Your task to perform on an android device: Open the Play Movies app and select the watchlist tab. Image 0: 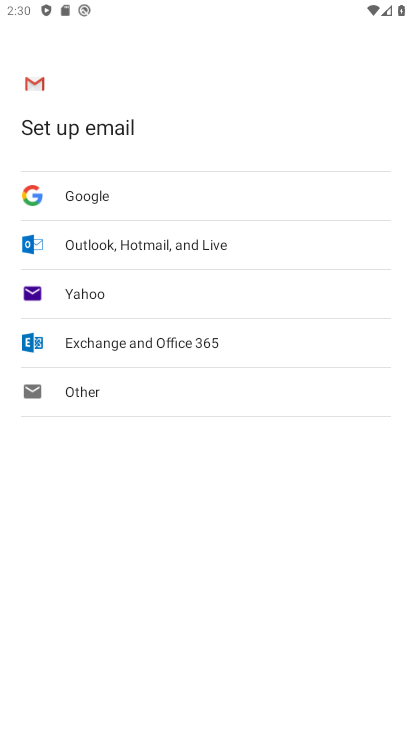
Step 0: press home button
Your task to perform on an android device: Open the Play Movies app and select the watchlist tab. Image 1: 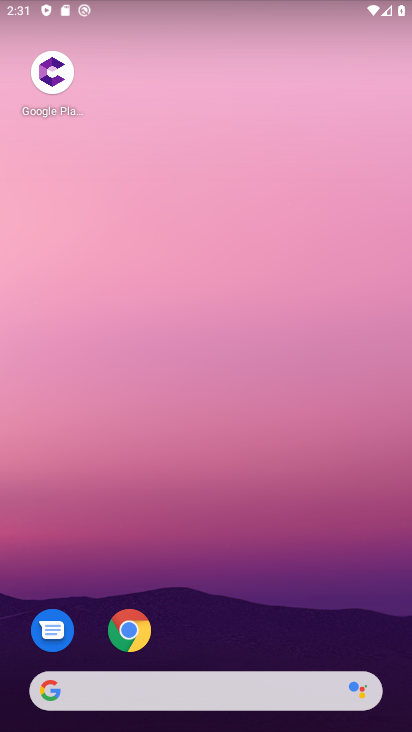
Step 1: drag from (274, 718) to (240, 330)
Your task to perform on an android device: Open the Play Movies app and select the watchlist tab. Image 2: 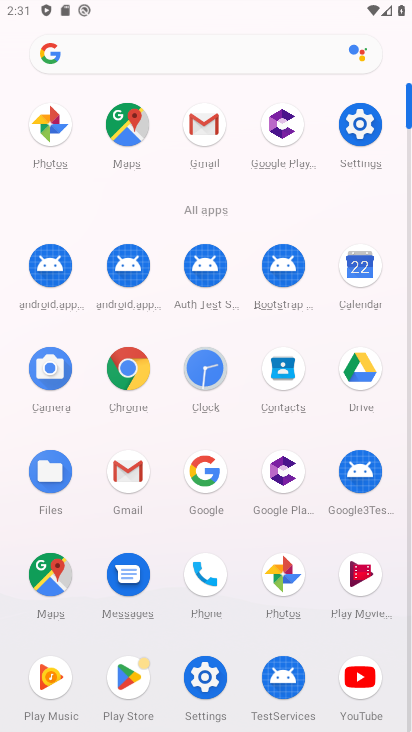
Step 2: click (357, 573)
Your task to perform on an android device: Open the Play Movies app and select the watchlist tab. Image 3: 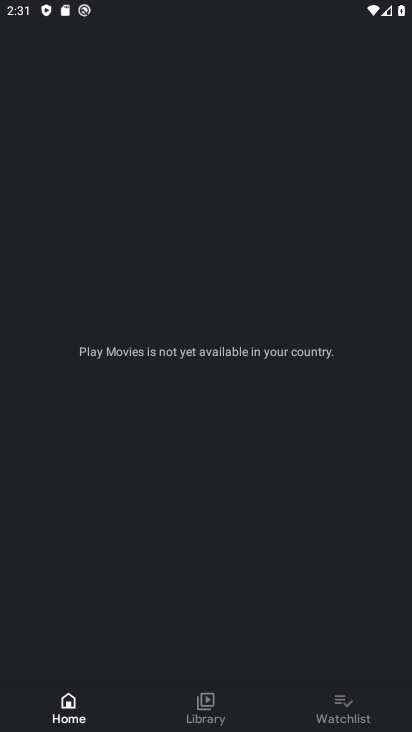
Step 3: click (342, 709)
Your task to perform on an android device: Open the Play Movies app and select the watchlist tab. Image 4: 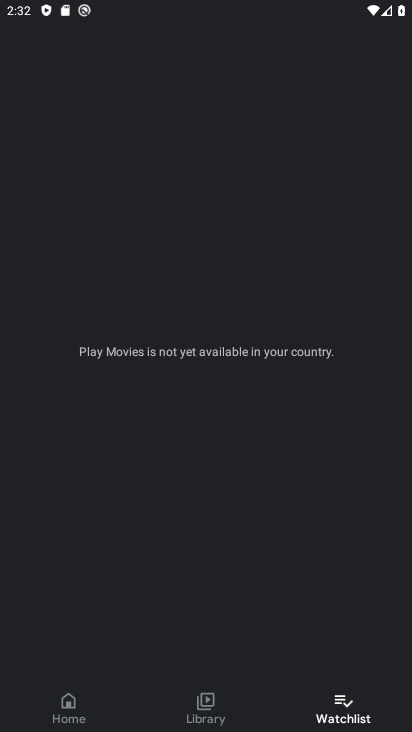
Step 4: task complete